Your task to perform on an android device: turn on translation in the chrome app Image 0: 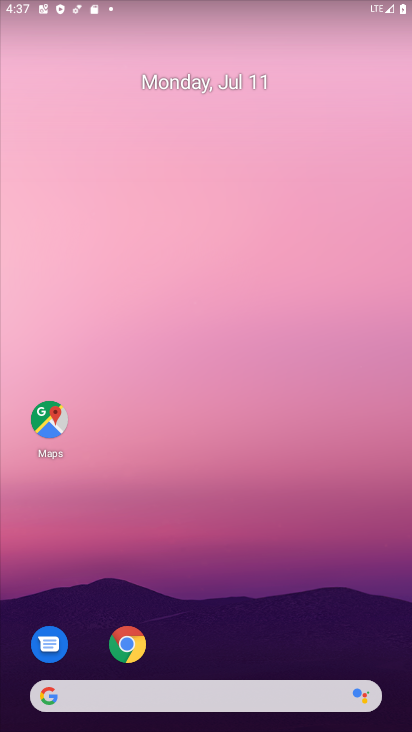
Step 0: press home button
Your task to perform on an android device: turn on translation in the chrome app Image 1: 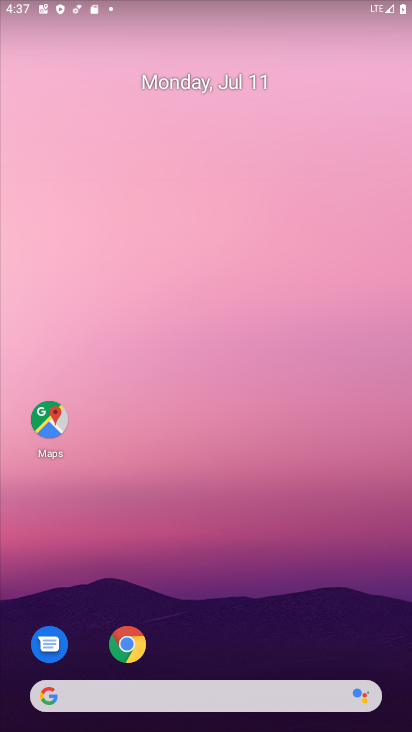
Step 1: drag from (213, 645) to (227, 219)
Your task to perform on an android device: turn on translation in the chrome app Image 2: 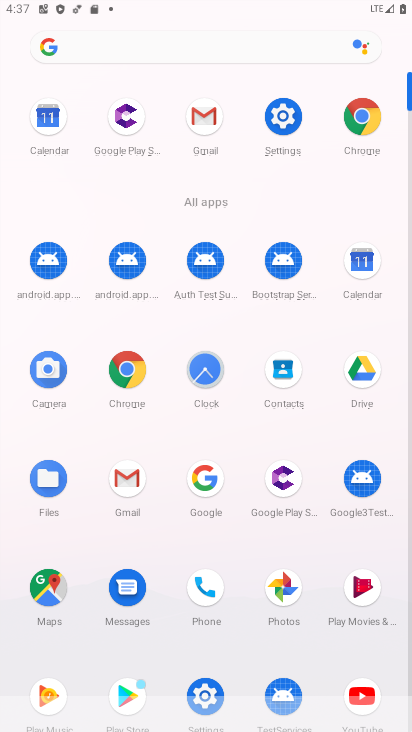
Step 2: click (358, 122)
Your task to perform on an android device: turn on translation in the chrome app Image 3: 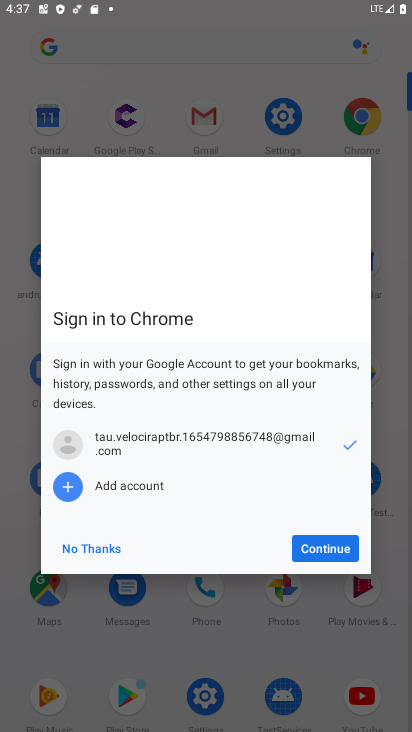
Step 3: click (334, 556)
Your task to perform on an android device: turn on translation in the chrome app Image 4: 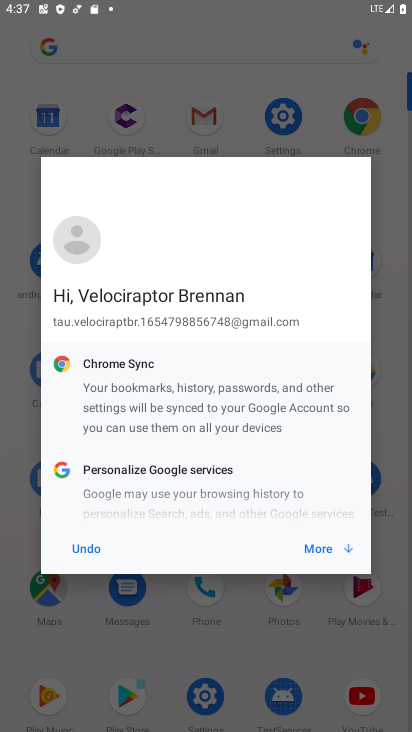
Step 4: click (321, 548)
Your task to perform on an android device: turn on translation in the chrome app Image 5: 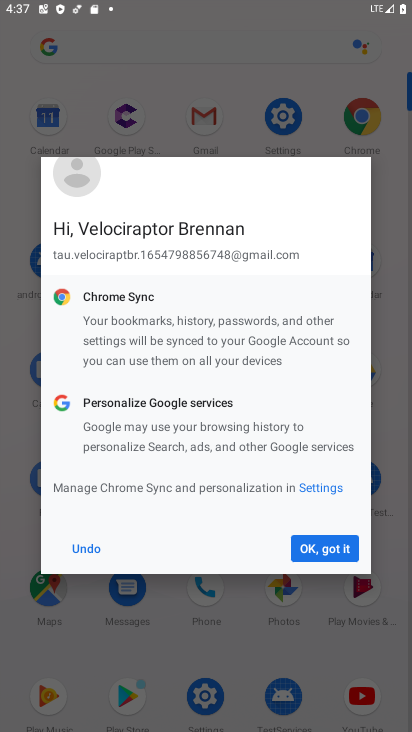
Step 5: click (351, 544)
Your task to perform on an android device: turn on translation in the chrome app Image 6: 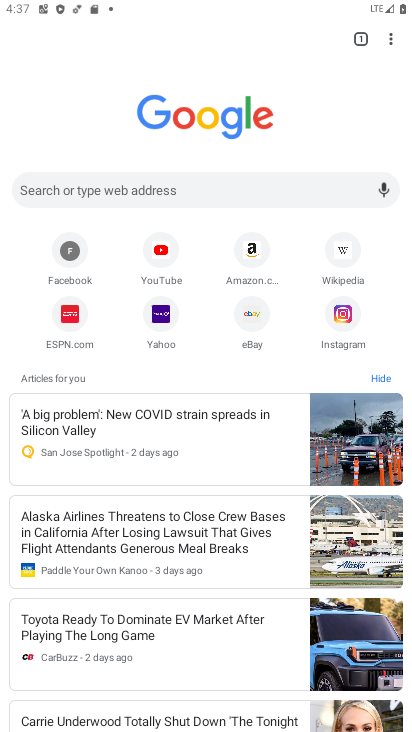
Step 6: press home button
Your task to perform on an android device: turn on translation in the chrome app Image 7: 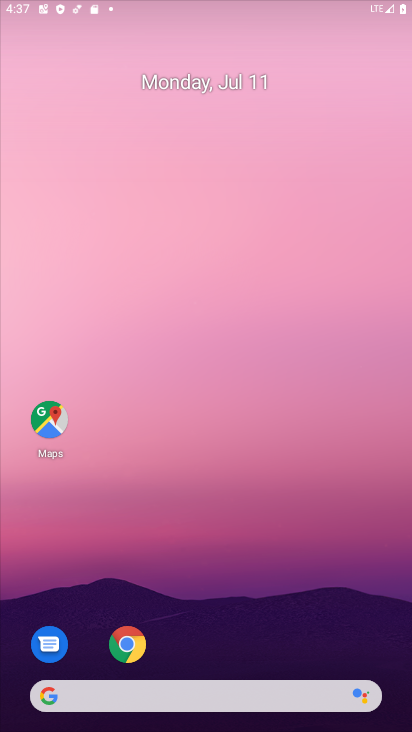
Step 7: drag from (276, 566) to (269, 78)
Your task to perform on an android device: turn on translation in the chrome app Image 8: 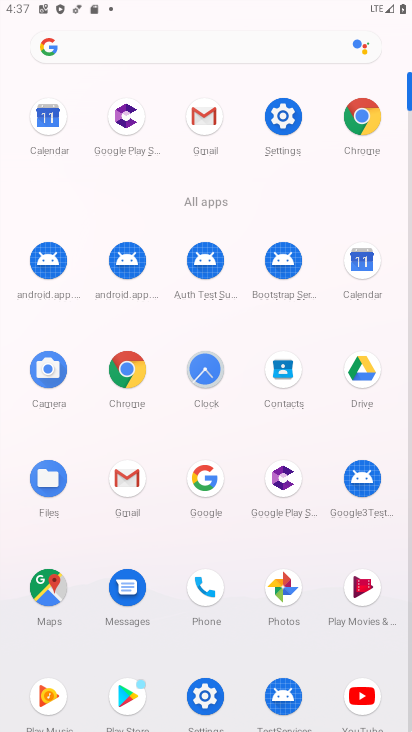
Step 8: click (364, 112)
Your task to perform on an android device: turn on translation in the chrome app Image 9: 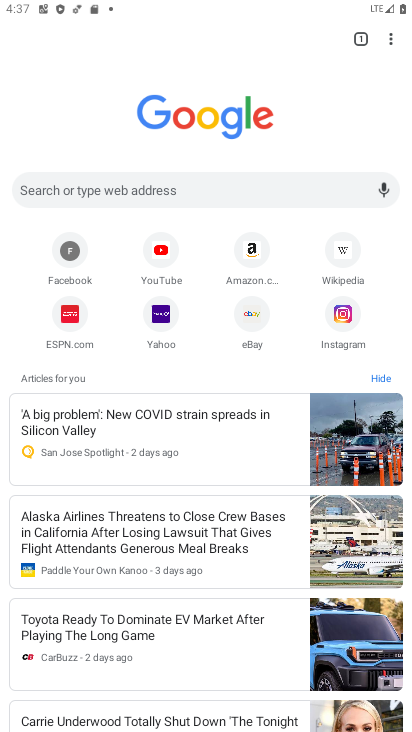
Step 9: click (392, 45)
Your task to perform on an android device: turn on translation in the chrome app Image 10: 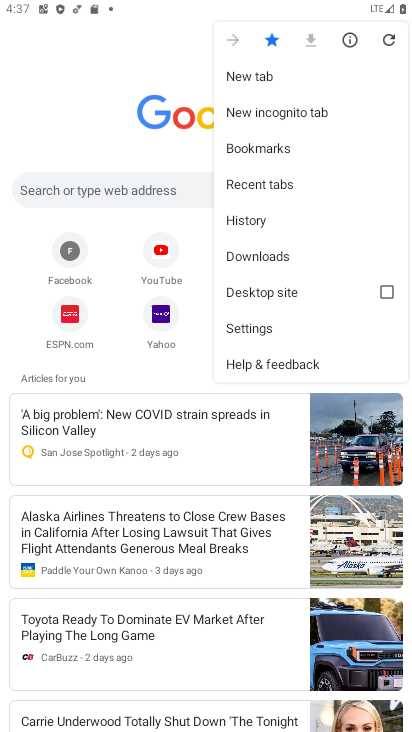
Step 10: click (286, 331)
Your task to perform on an android device: turn on translation in the chrome app Image 11: 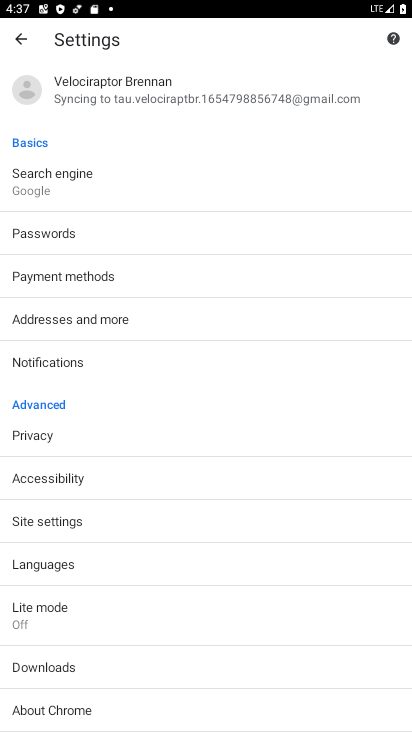
Step 11: click (105, 554)
Your task to perform on an android device: turn on translation in the chrome app Image 12: 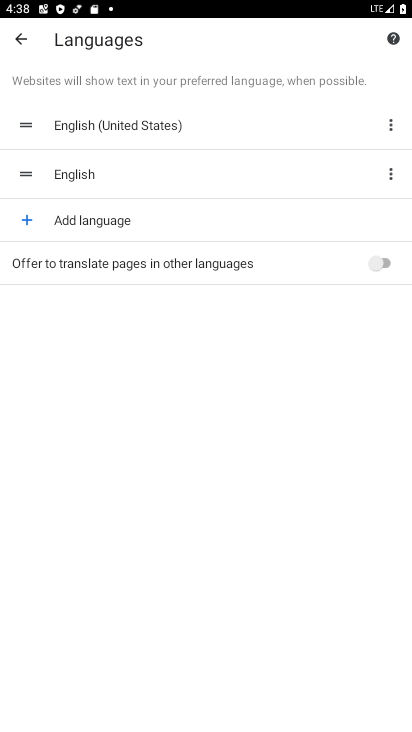
Step 12: click (380, 268)
Your task to perform on an android device: turn on translation in the chrome app Image 13: 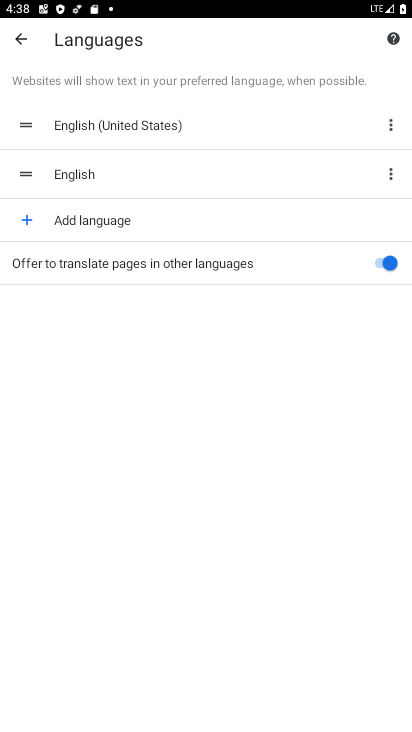
Step 13: task complete